Your task to perform on an android device: Go to Maps Image 0: 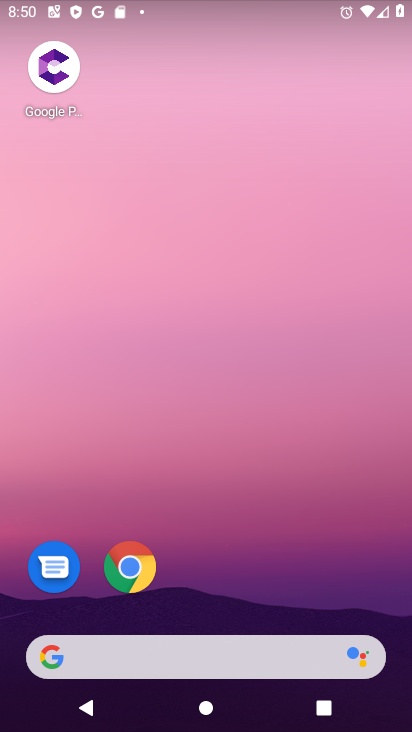
Step 0: drag from (296, 475) to (233, 19)
Your task to perform on an android device: Go to Maps Image 1: 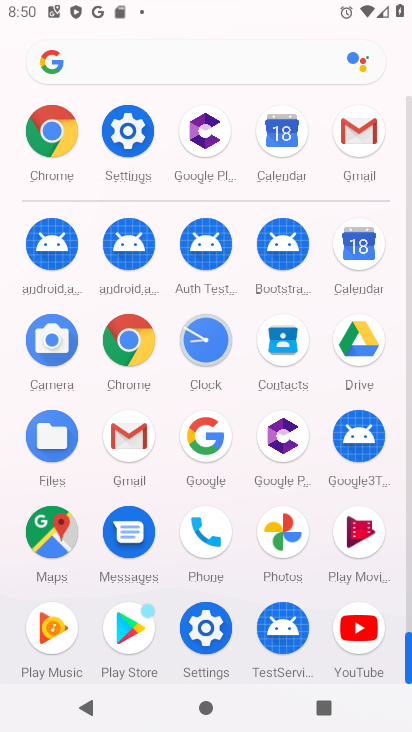
Step 1: drag from (4, 526) to (8, 215)
Your task to perform on an android device: Go to Maps Image 2: 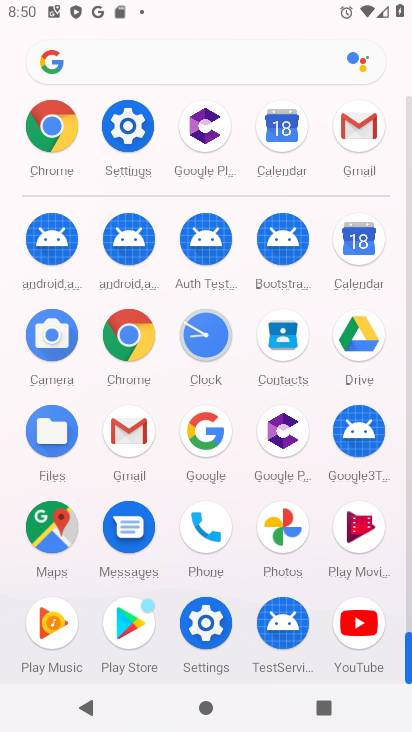
Step 2: click (50, 524)
Your task to perform on an android device: Go to Maps Image 3: 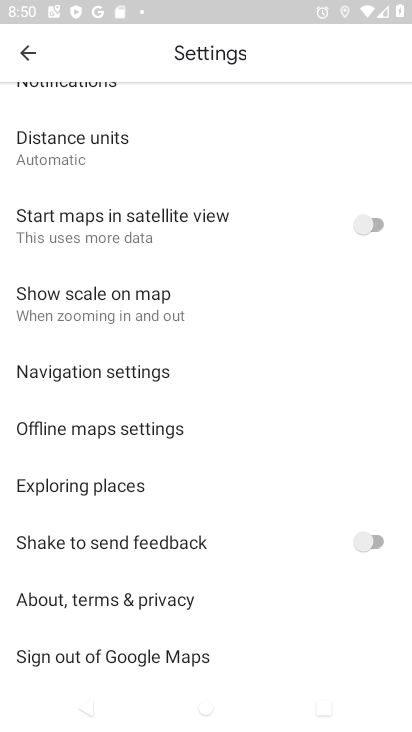
Step 3: click (24, 46)
Your task to perform on an android device: Go to Maps Image 4: 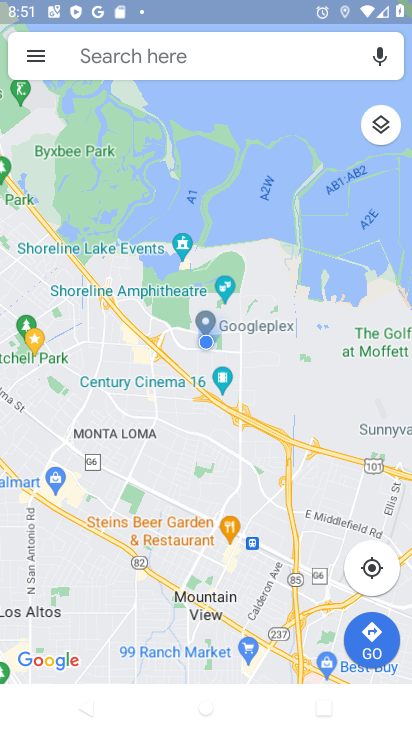
Step 4: task complete